Your task to perform on an android device: Open Wikipedia Image 0: 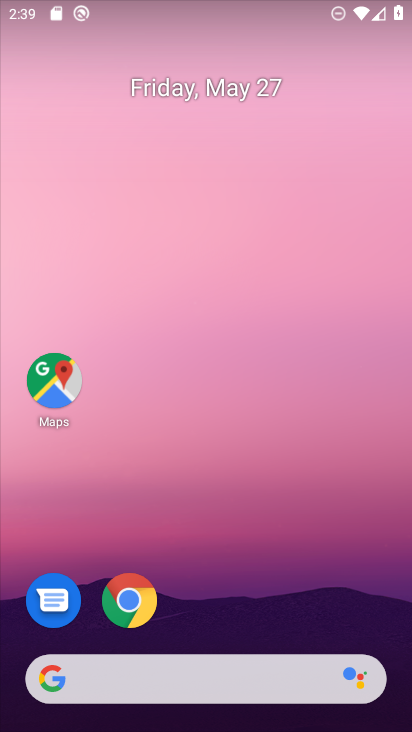
Step 0: click (130, 596)
Your task to perform on an android device: Open Wikipedia Image 1: 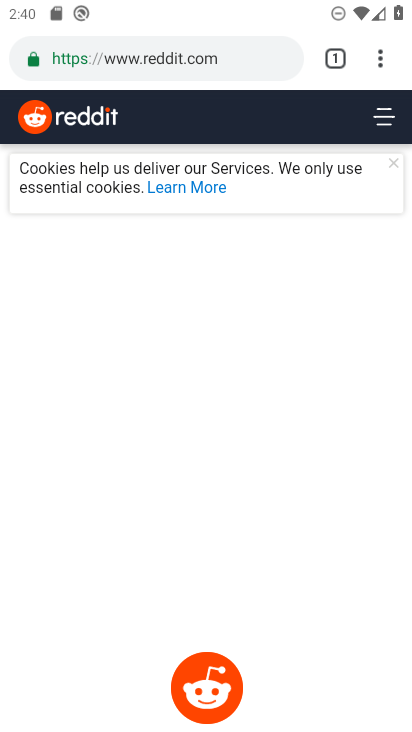
Step 1: click (380, 65)
Your task to perform on an android device: Open Wikipedia Image 2: 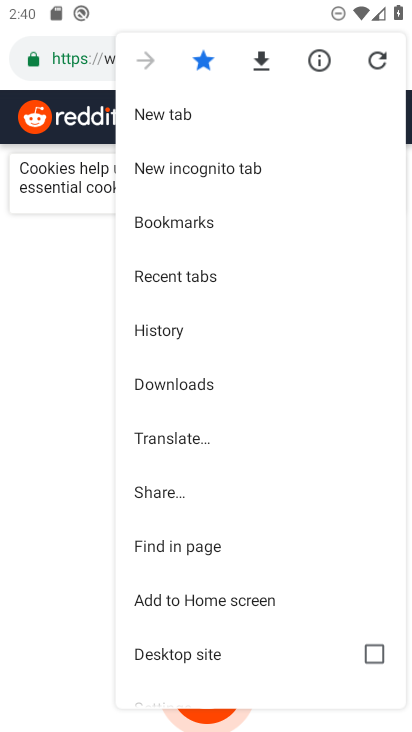
Step 2: click (165, 114)
Your task to perform on an android device: Open Wikipedia Image 3: 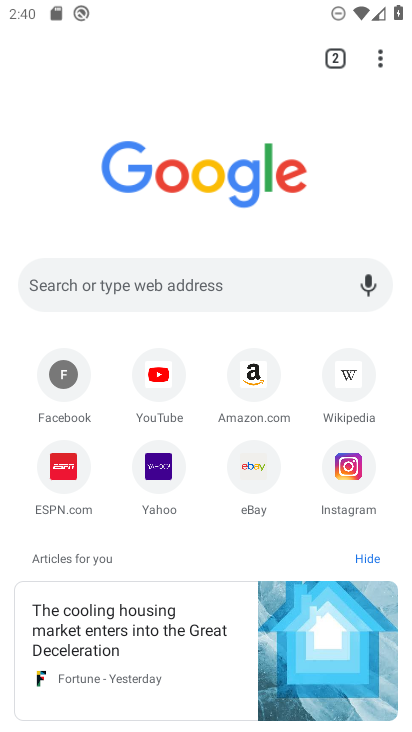
Step 3: click (346, 381)
Your task to perform on an android device: Open Wikipedia Image 4: 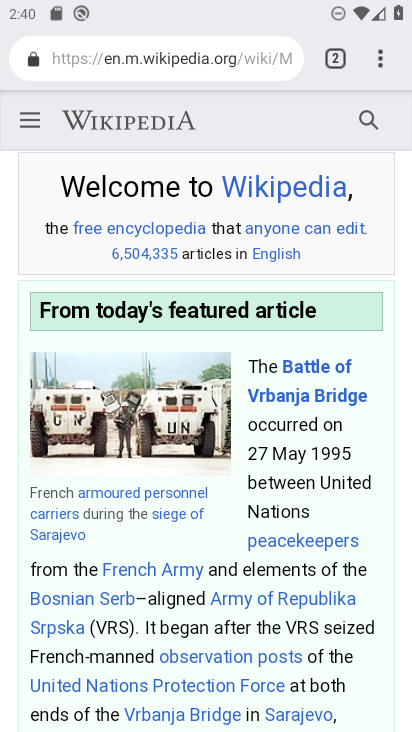
Step 4: task complete